Your task to perform on an android device: Open Maps and search for coffee Image 0: 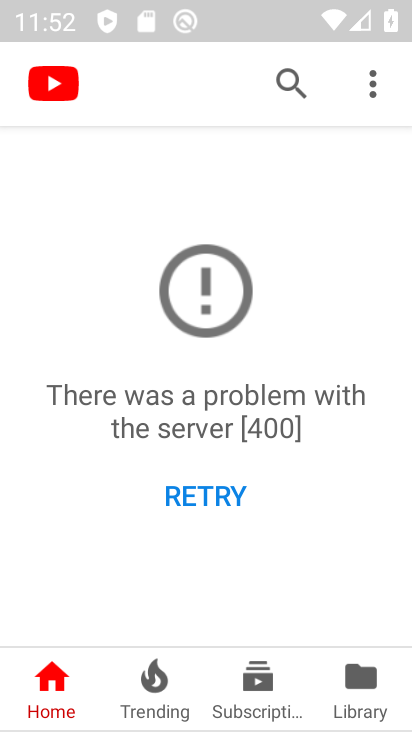
Step 0: press back button
Your task to perform on an android device: Open Maps and search for coffee Image 1: 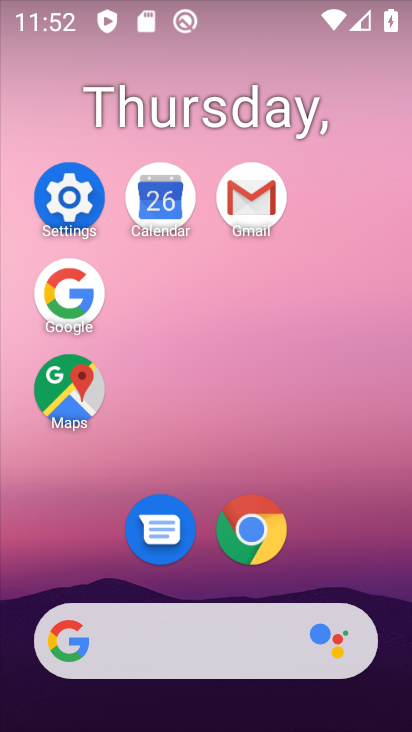
Step 1: click (73, 376)
Your task to perform on an android device: Open Maps and search for coffee Image 2: 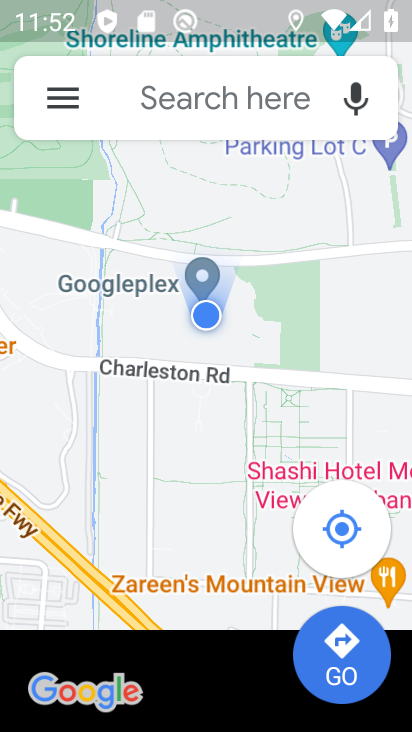
Step 2: click (224, 120)
Your task to perform on an android device: Open Maps and search for coffee Image 3: 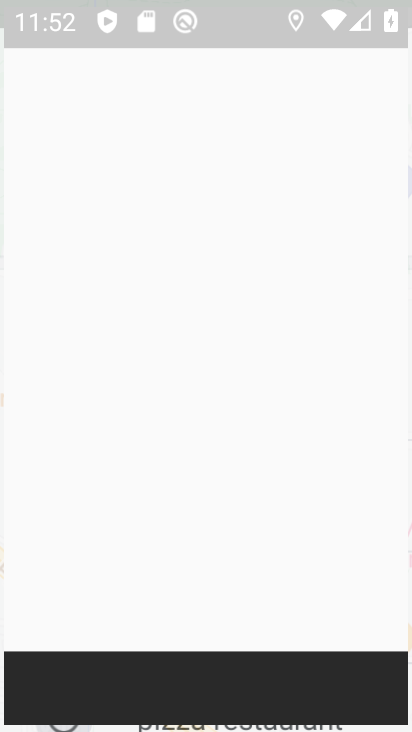
Step 3: click (179, 368)
Your task to perform on an android device: Open Maps and search for coffee Image 4: 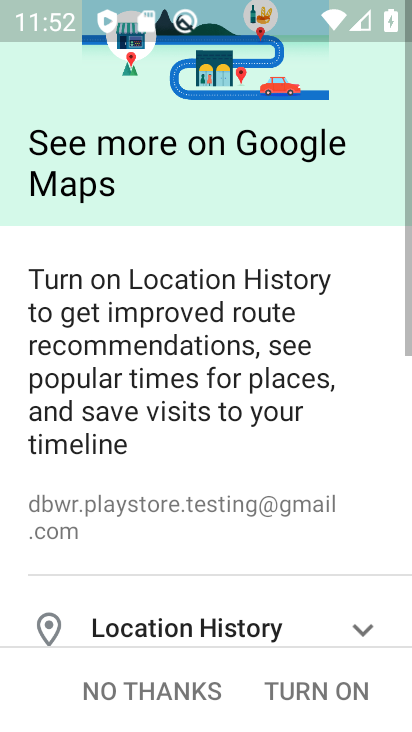
Step 4: task complete